Your task to perform on an android device: check battery use Image 0: 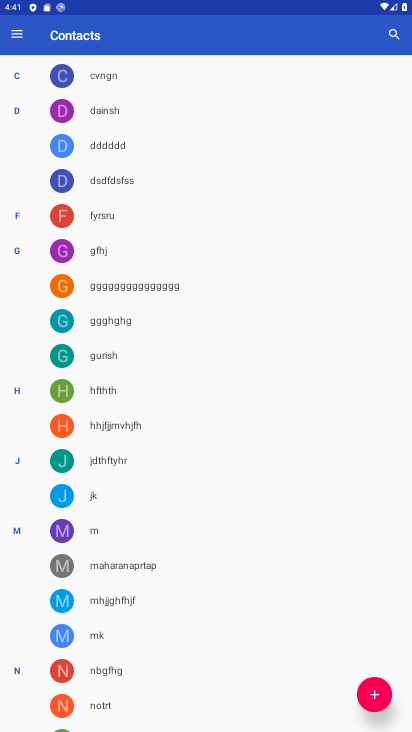
Step 0: press home button
Your task to perform on an android device: check battery use Image 1: 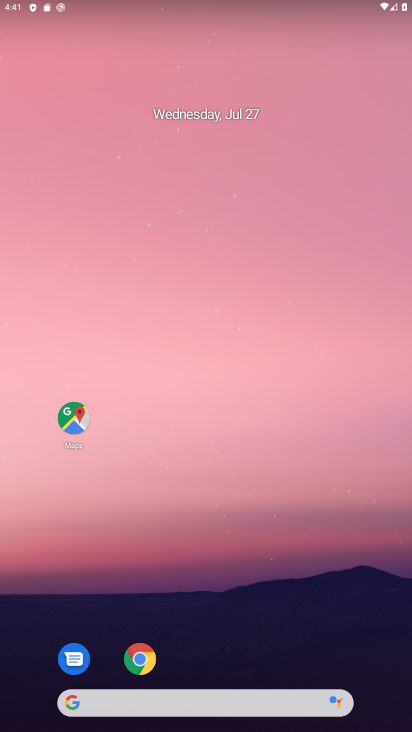
Step 1: drag from (156, 610) to (141, 152)
Your task to perform on an android device: check battery use Image 2: 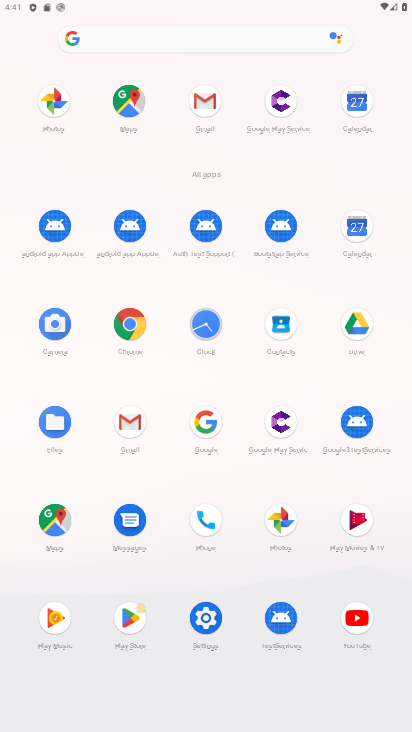
Step 2: click (195, 615)
Your task to perform on an android device: check battery use Image 3: 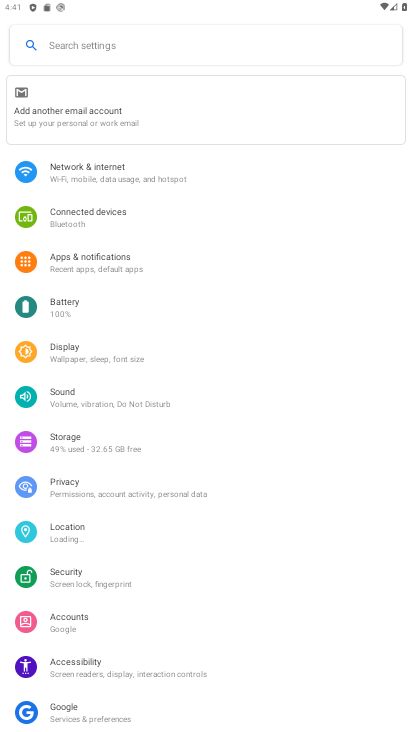
Step 3: click (81, 304)
Your task to perform on an android device: check battery use Image 4: 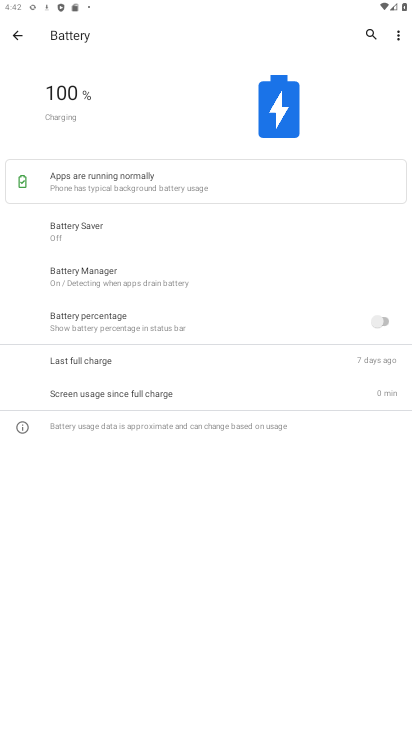
Step 4: task complete